Your task to perform on an android device: Show me popular videos on Youtube Image 0: 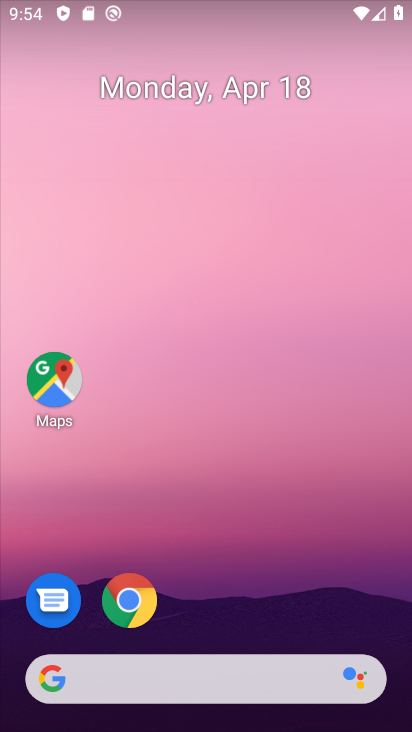
Step 0: drag from (217, 437) to (202, 21)
Your task to perform on an android device: Show me popular videos on Youtube Image 1: 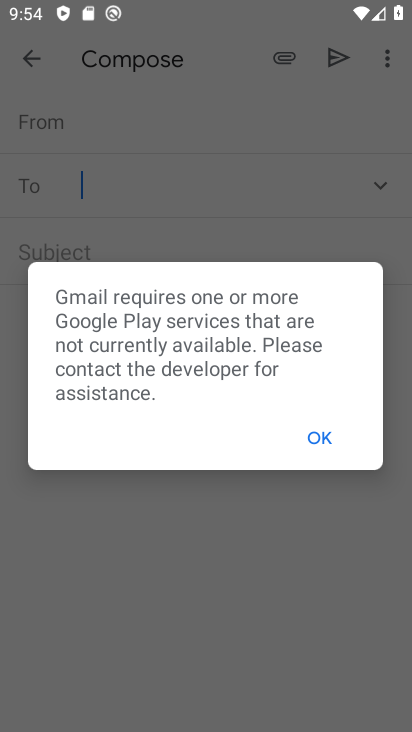
Step 1: press home button
Your task to perform on an android device: Show me popular videos on Youtube Image 2: 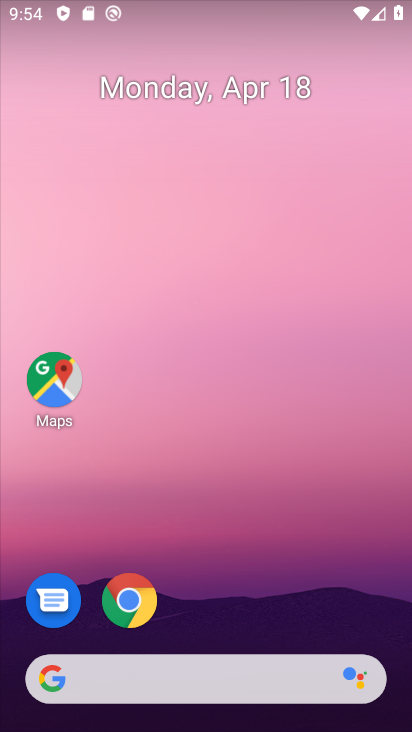
Step 2: drag from (200, 641) to (119, 46)
Your task to perform on an android device: Show me popular videos on Youtube Image 3: 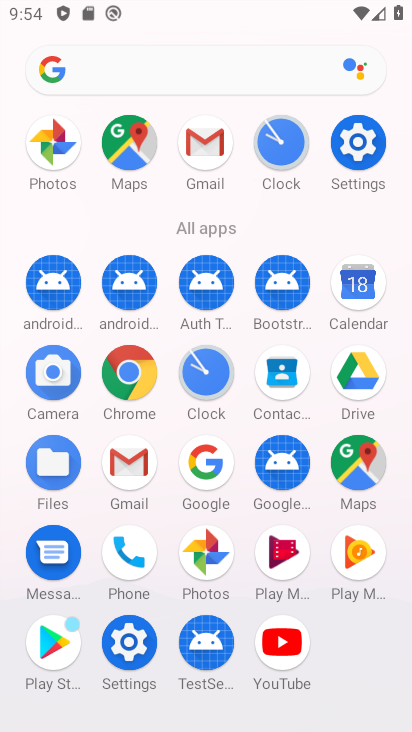
Step 3: click (270, 642)
Your task to perform on an android device: Show me popular videos on Youtube Image 4: 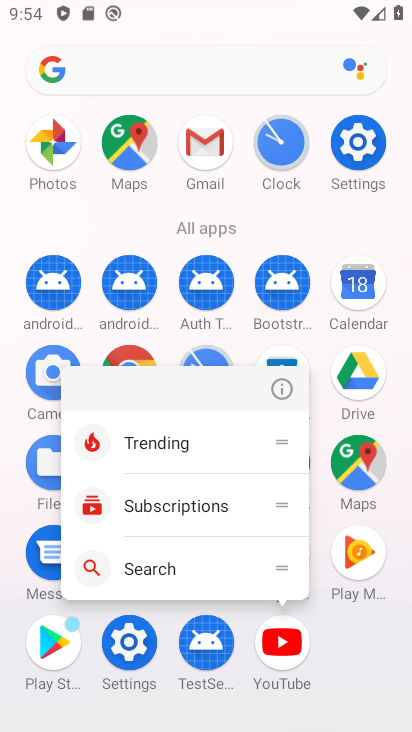
Step 4: click (270, 645)
Your task to perform on an android device: Show me popular videos on Youtube Image 5: 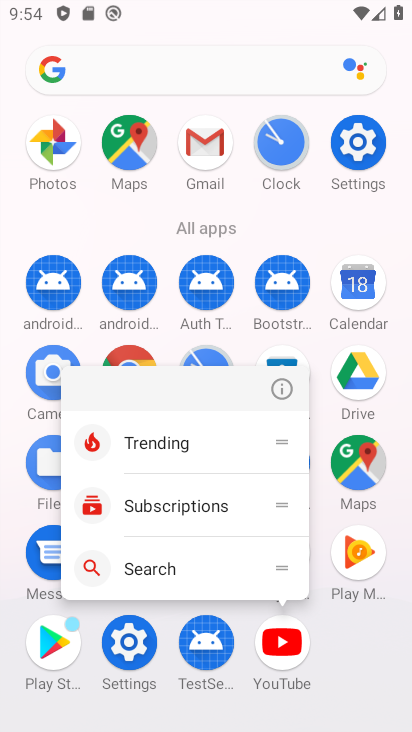
Step 5: click (267, 645)
Your task to perform on an android device: Show me popular videos on Youtube Image 6: 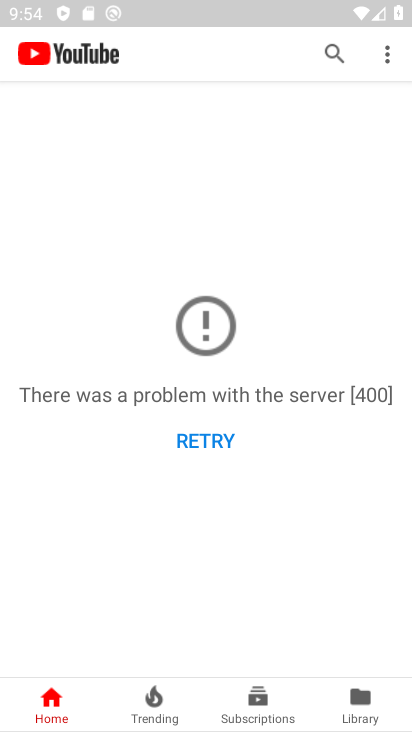
Step 6: click (208, 432)
Your task to perform on an android device: Show me popular videos on Youtube Image 7: 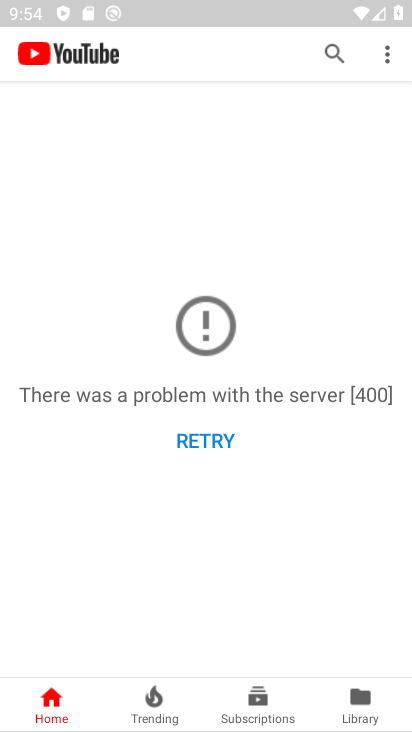
Step 7: task complete